Your task to perform on an android device: toggle notifications settings in the gmail app Image 0: 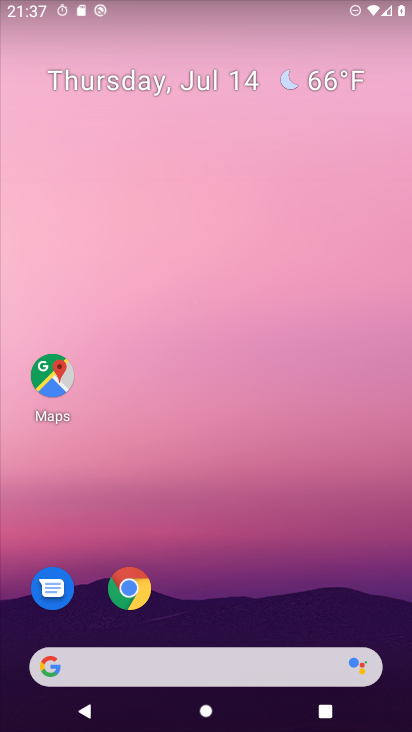
Step 0: drag from (332, 594) to (364, 67)
Your task to perform on an android device: toggle notifications settings in the gmail app Image 1: 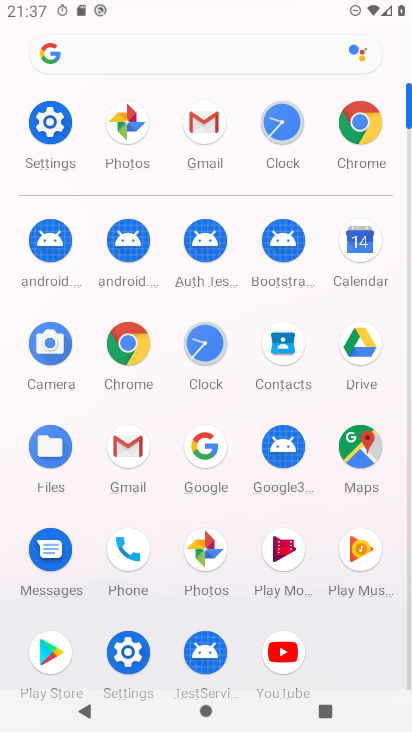
Step 1: click (212, 138)
Your task to perform on an android device: toggle notifications settings in the gmail app Image 2: 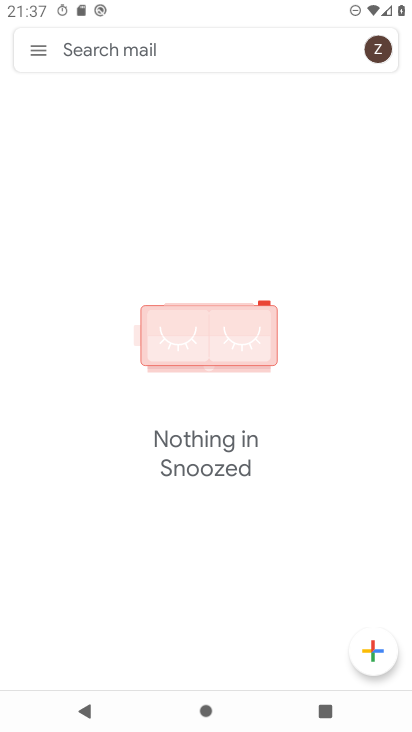
Step 2: click (40, 50)
Your task to perform on an android device: toggle notifications settings in the gmail app Image 3: 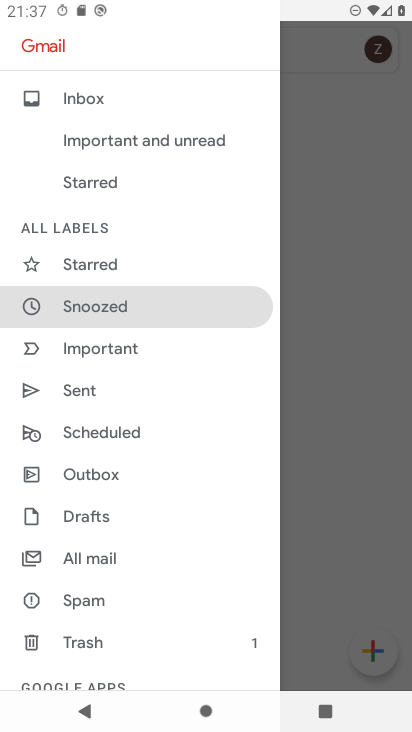
Step 3: drag from (214, 232) to (220, 333)
Your task to perform on an android device: toggle notifications settings in the gmail app Image 4: 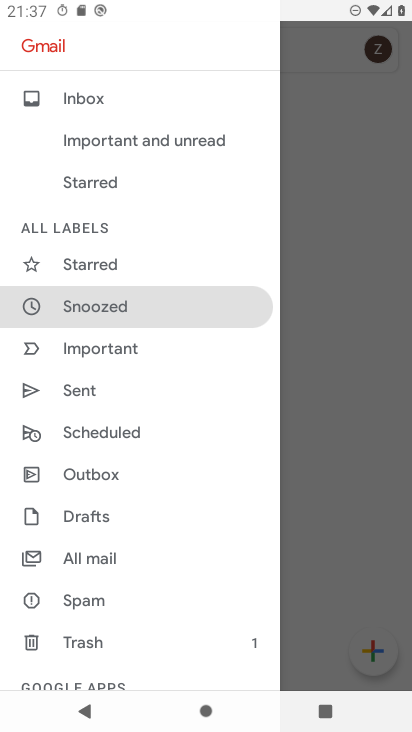
Step 4: drag from (220, 407) to (225, 290)
Your task to perform on an android device: toggle notifications settings in the gmail app Image 5: 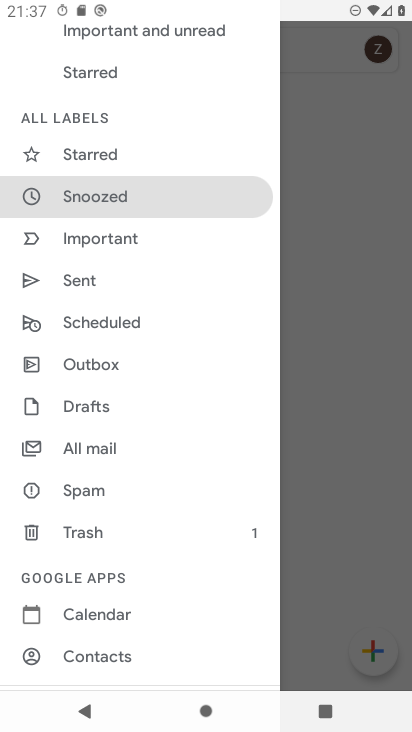
Step 5: drag from (208, 415) to (211, 332)
Your task to perform on an android device: toggle notifications settings in the gmail app Image 6: 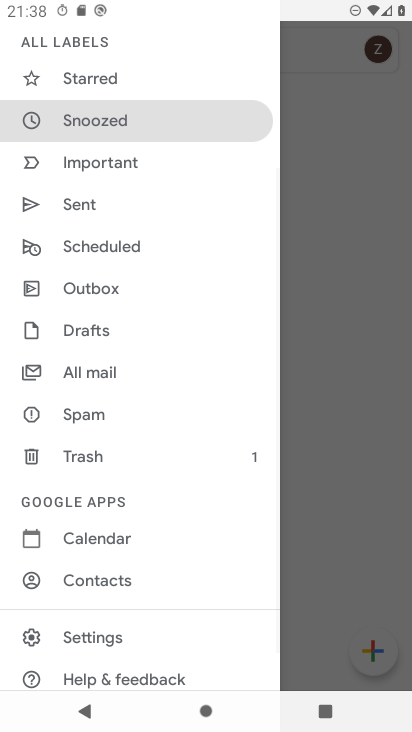
Step 6: drag from (199, 415) to (198, 289)
Your task to perform on an android device: toggle notifications settings in the gmail app Image 7: 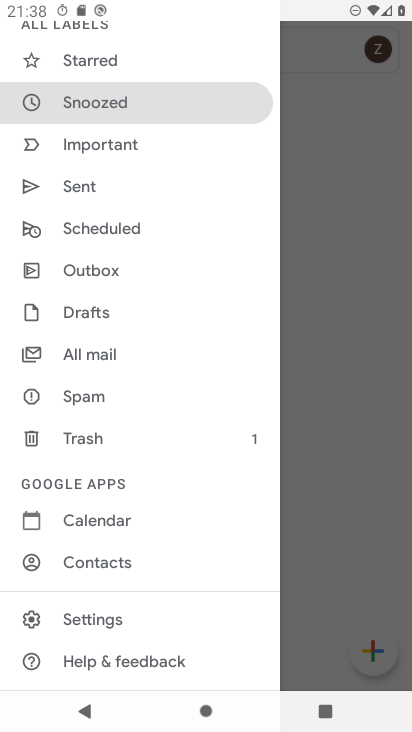
Step 7: click (118, 610)
Your task to perform on an android device: toggle notifications settings in the gmail app Image 8: 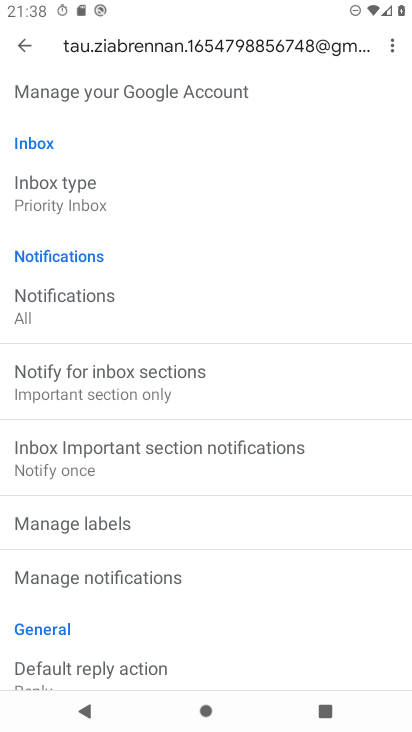
Step 8: drag from (331, 251) to (339, 378)
Your task to perform on an android device: toggle notifications settings in the gmail app Image 9: 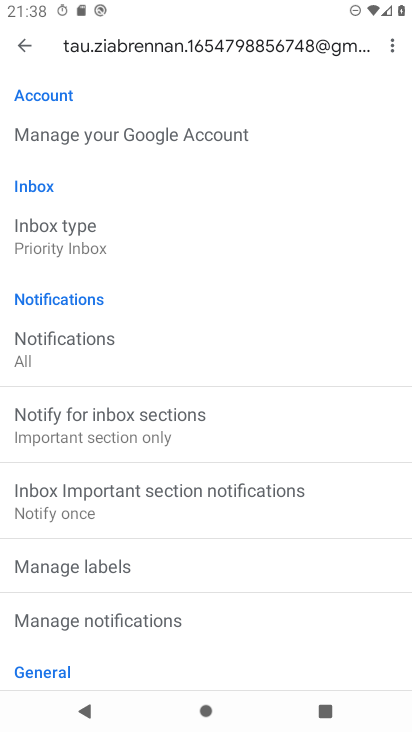
Step 9: drag from (351, 279) to (358, 425)
Your task to perform on an android device: toggle notifications settings in the gmail app Image 10: 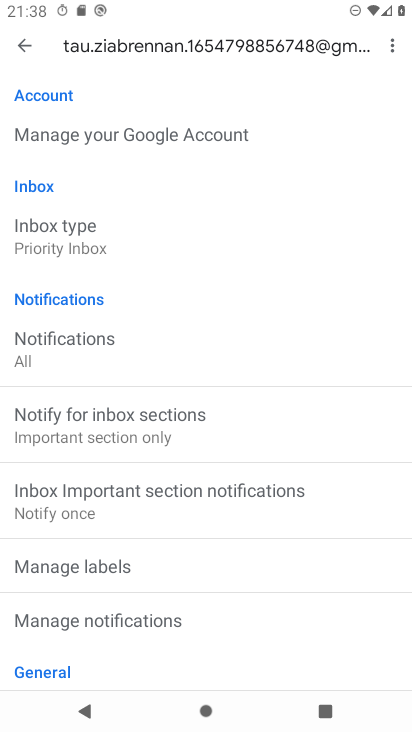
Step 10: drag from (364, 459) to (368, 297)
Your task to perform on an android device: toggle notifications settings in the gmail app Image 11: 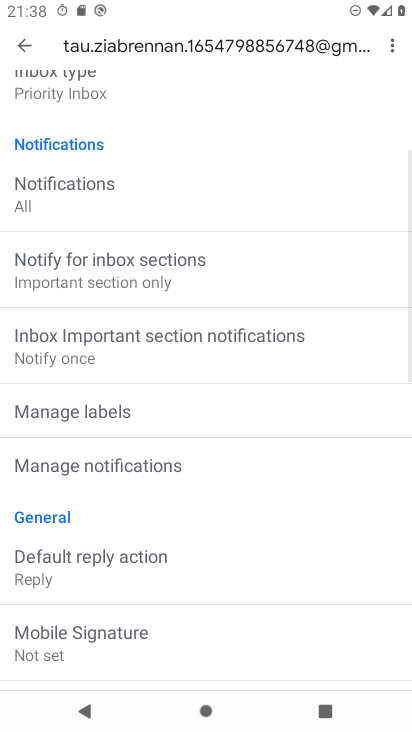
Step 11: drag from (364, 426) to (366, 277)
Your task to perform on an android device: toggle notifications settings in the gmail app Image 12: 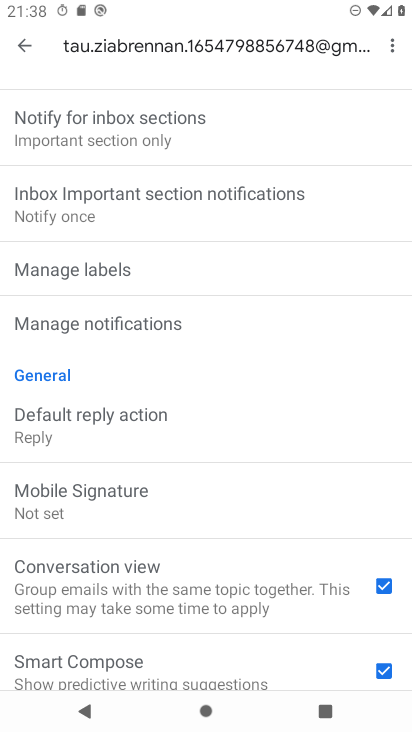
Step 12: drag from (351, 414) to (361, 309)
Your task to perform on an android device: toggle notifications settings in the gmail app Image 13: 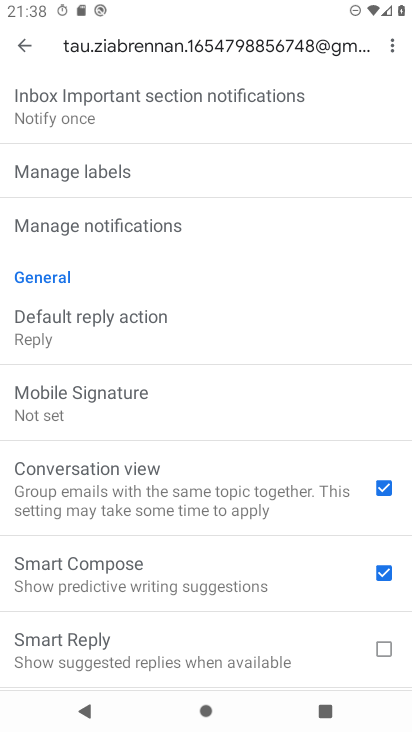
Step 13: drag from (331, 426) to (331, 324)
Your task to perform on an android device: toggle notifications settings in the gmail app Image 14: 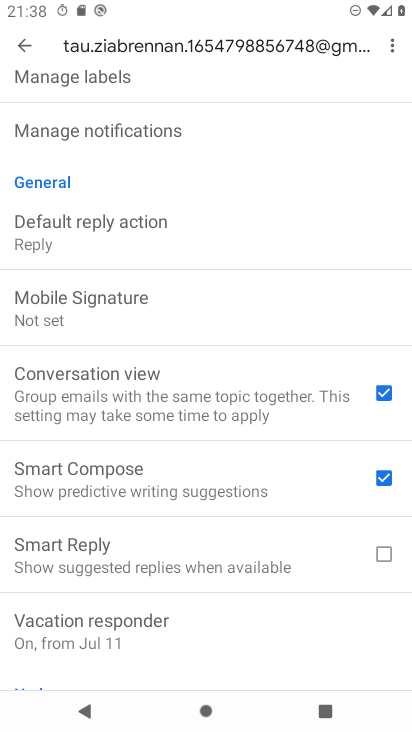
Step 14: drag from (316, 468) to (316, 197)
Your task to perform on an android device: toggle notifications settings in the gmail app Image 15: 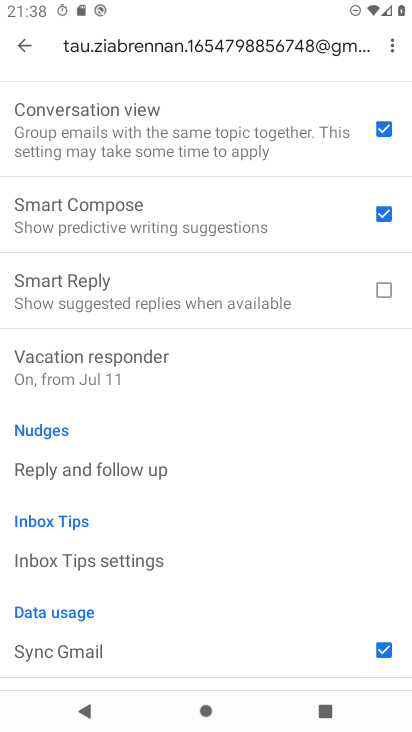
Step 15: drag from (297, 381) to (304, 292)
Your task to perform on an android device: toggle notifications settings in the gmail app Image 16: 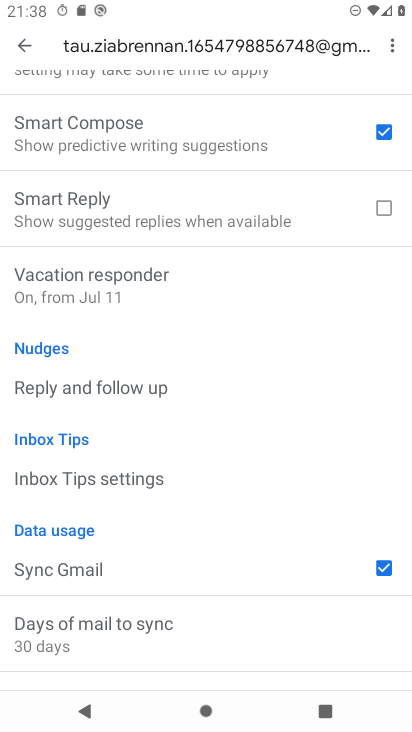
Step 16: drag from (290, 342) to (287, 438)
Your task to perform on an android device: toggle notifications settings in the gmail app Image 17: 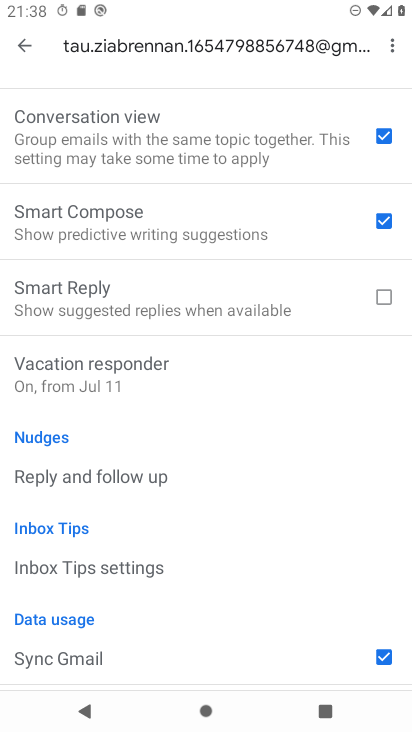
Step 17: drag from (298, 285) to (305, 366)
Your task to perform on an android device: toggle notifications settings in the gmail app Image 18: 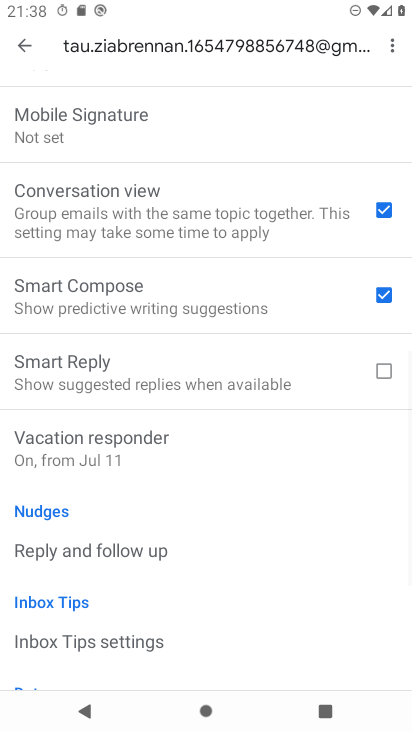
Step 18: drag from (312, 286) to (313, 377)
Your task to perform on an android device: toggle notifications settings in the gmail app Image 19: 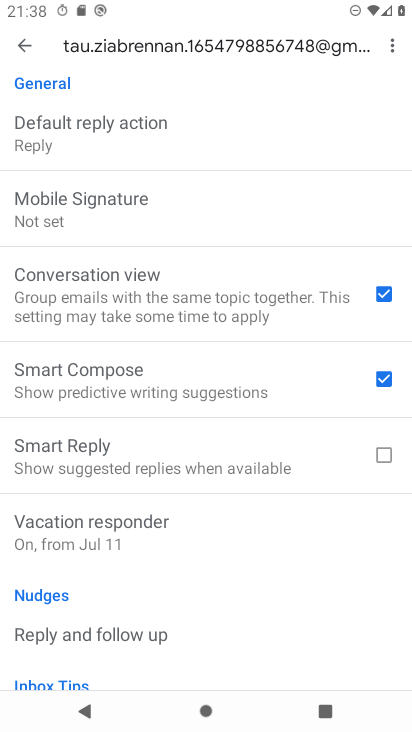
Step 19: drag from (312, 252) to (305, 371)
Your task to perform on an android device: toggle notifications settings in the gmail app Image 20: 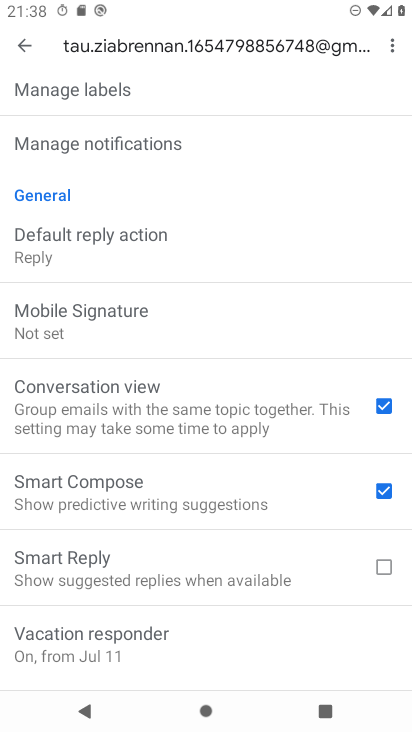
Step 20: drag from (305, 245) to (288, 492)
Your task to perform on an android device: toggle notifications settings in the gmail app Image 21: 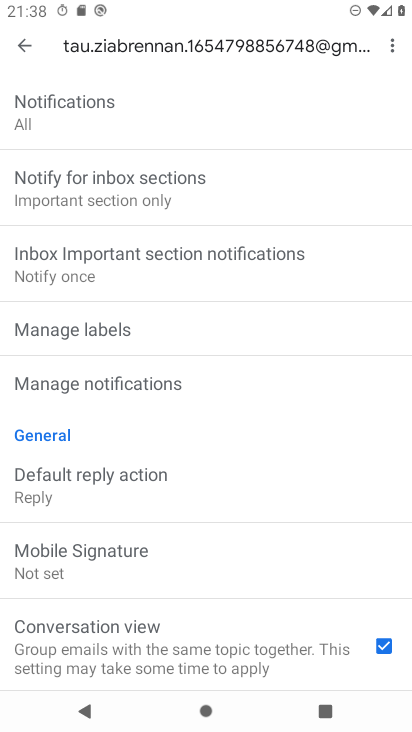
Step 21: click (228, 379)
Your task to perform on an android device: toggle notifications settings in the gmail app Image 22: 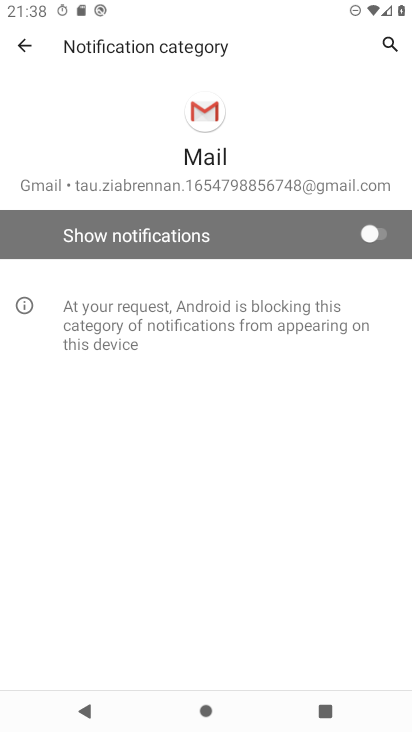
Step 22: click (378, 235)
Your task to perform on an android device: toggle notifications settings in the gmail app Image 23: 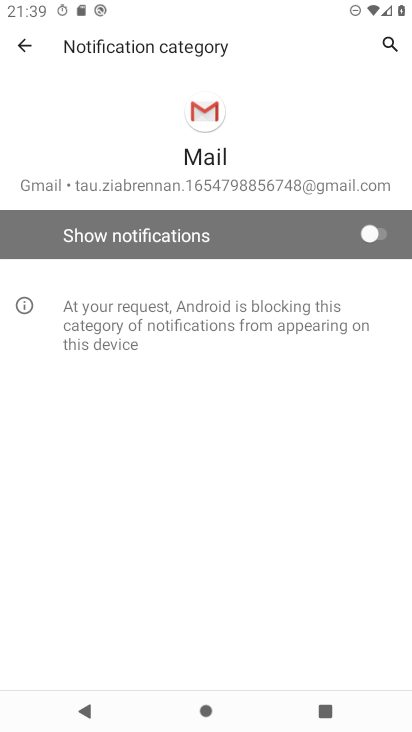
Step 23: click (363, 222)
Your task to perform on an android device: toggle notifications settings in the gmail app Image 24: 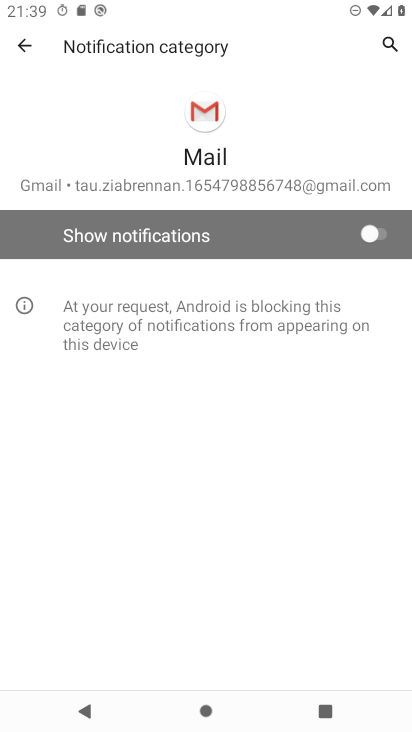
Step 24: task complete